Your task to perform on an android device: choose inbox layout in the gmail app Image 0: 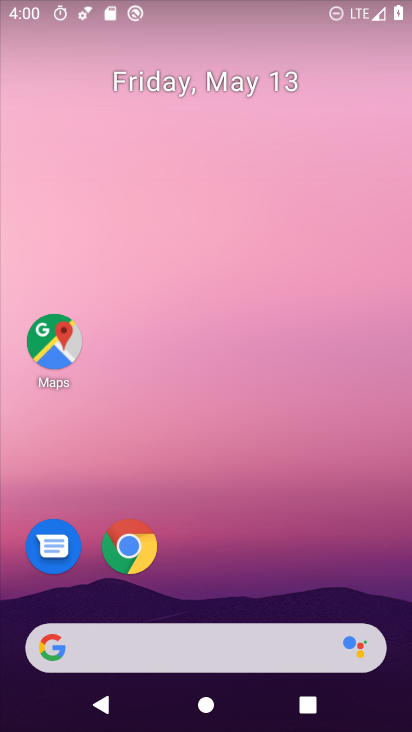
Step 0: drag from (243, 572) to (241, 184)
Your task to perform on an android device: choose inbox layout in the gmail app Image 1: 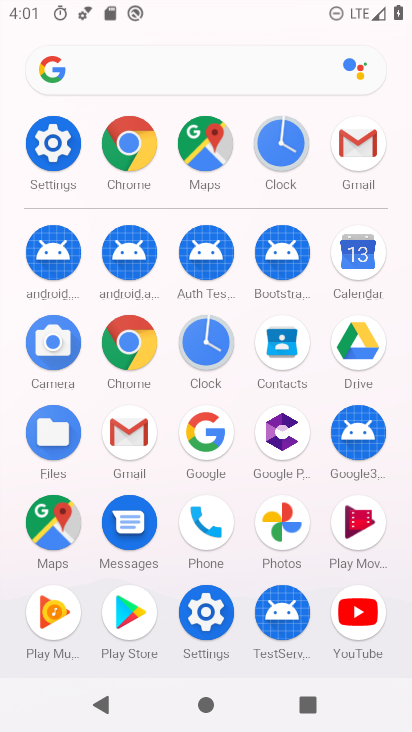
Step 1: drag from (236, 442) to (236, 285)
Your task to perform on an android device: choose inbox layout in the gmail app Image 2: 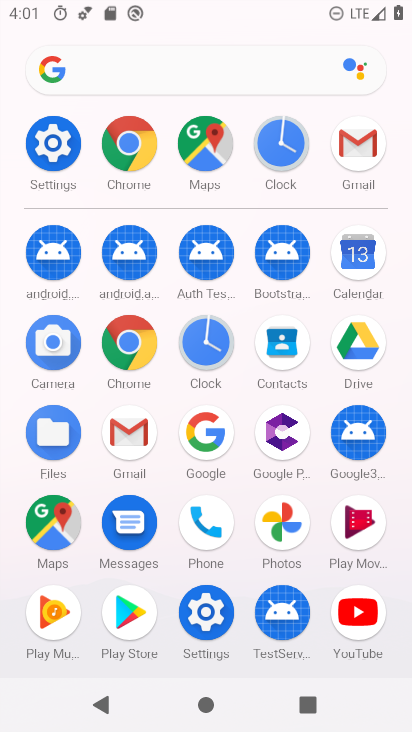
Step 2: click (136, 434)
Your task to perform on an android device: choose inbox layout in the gmail app Image 3: 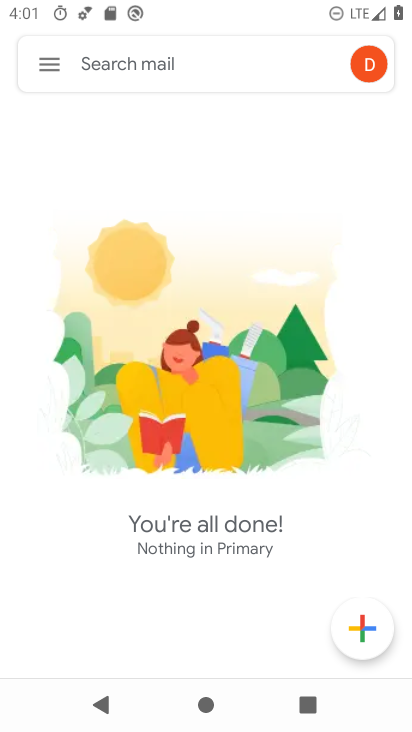
Step 3: click (52, 63)
Your task to perform on an android device: choose inbox layout in the gmail app Image 4: 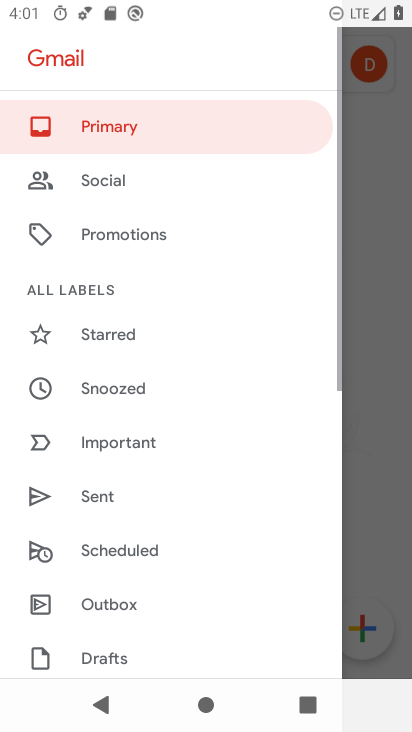
Step 4: drag from (133, 615) to (200, 191)
Your task to perform on an android device: choose inbox layout in the gmail app Image 5: 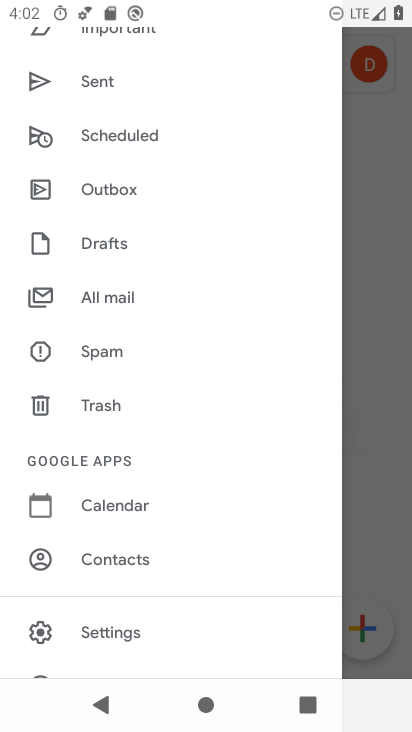
Step 5: click (106, 615)
Your task to perform on an android device: choose inbox layout in the gmail app Image 6: 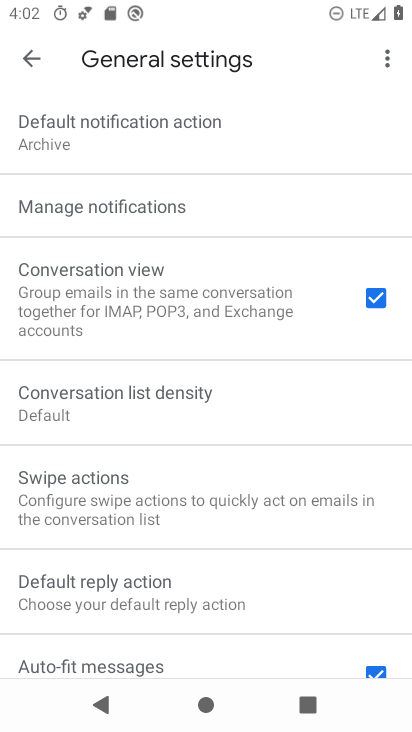
Step 6: task complete